Your task to perform on an android device: Open the stopwatch Image 0: 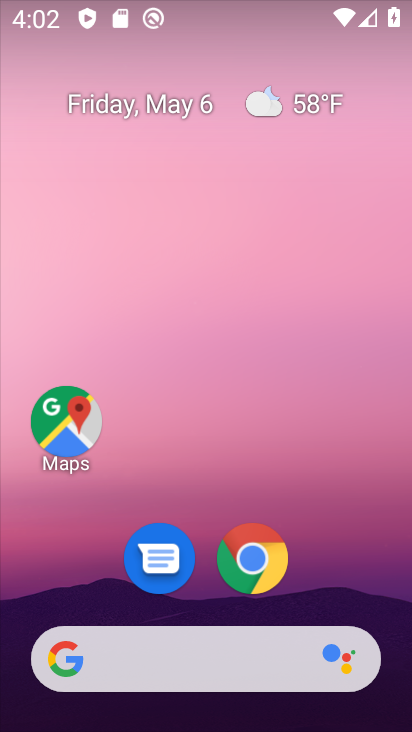
Step 0: drag from (333, 626) to (306, 2)
Your task to perform on an android device: Open the stopwatch Image 1: 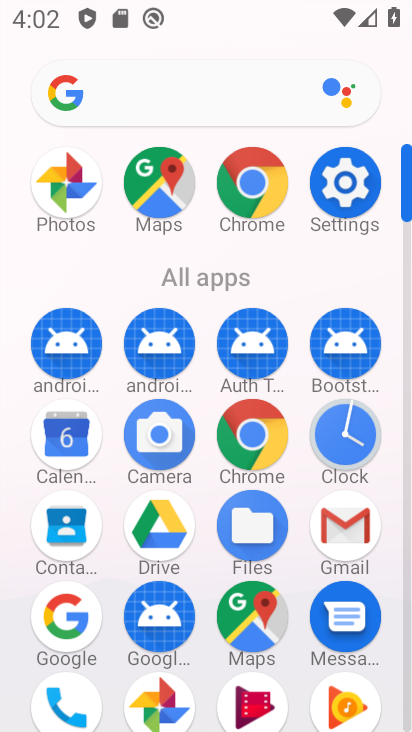
Step 1: drag from (299, 601) to (306, 274)
Your task to perform on an android device: Open the stopwatch Image 2: 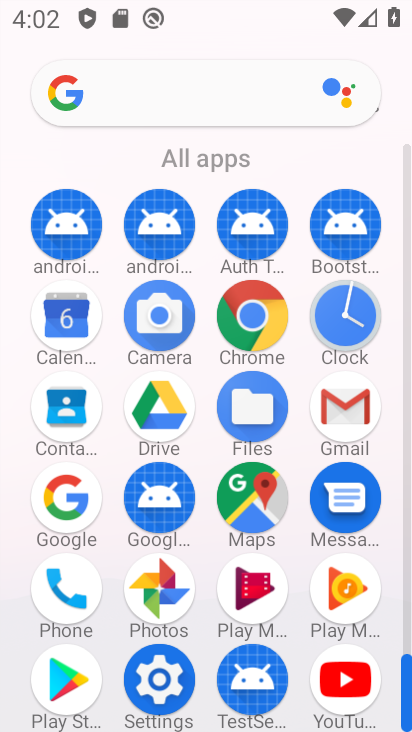
Step 2: click (356, 323)
Your task to perform on an android device: Open the stopwatch Image 3: 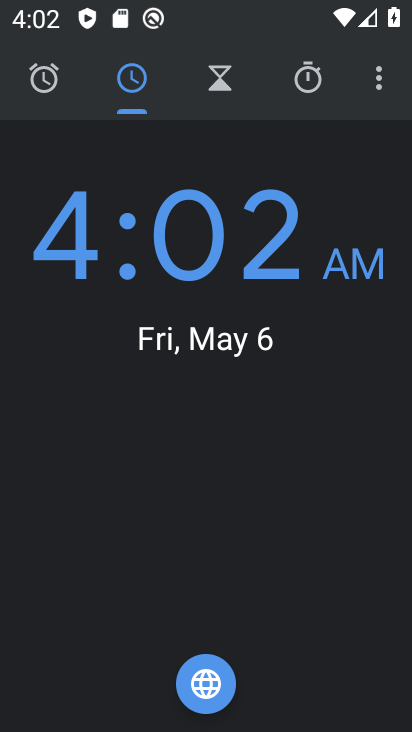
Step 3: click (314, 86)
Your task to perform on an android device: Open the stopwatch Image 4: 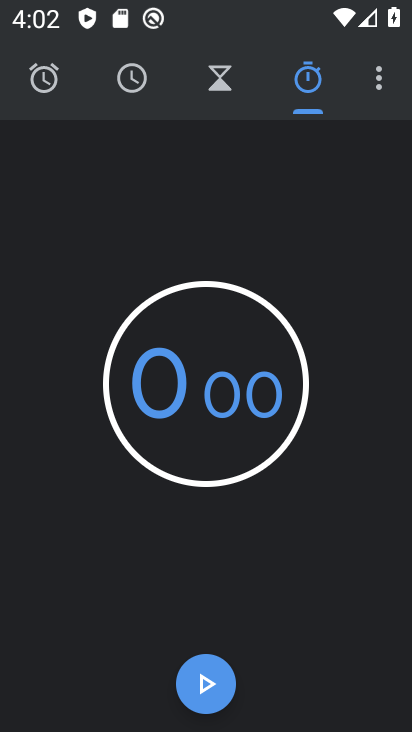
Step 4: click (221, 681)
Your task to perform on an android device: Open the stopwatch Image 5: 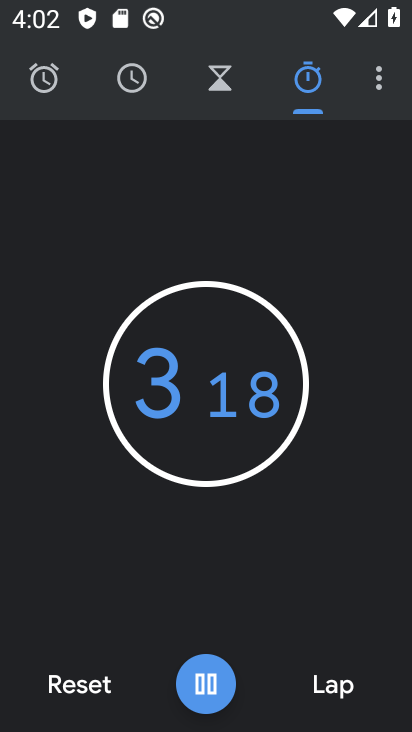
Step 5: task complete